Your task to perform on an android device: open sync settings in chrome Image 0: 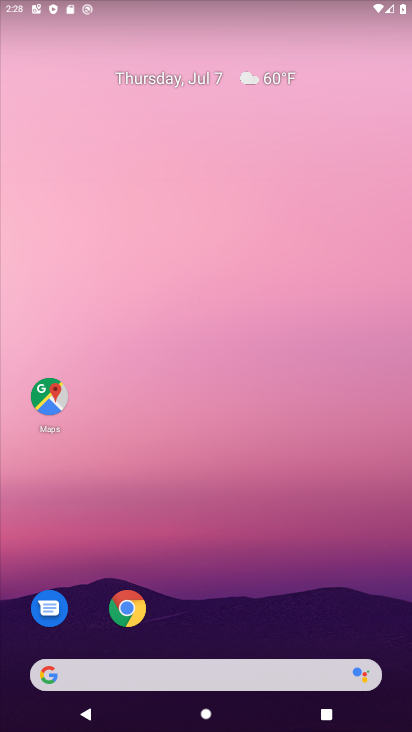
Step 0: press home button
Your task to perform on an android device: open sync settings in chrome Image 1: 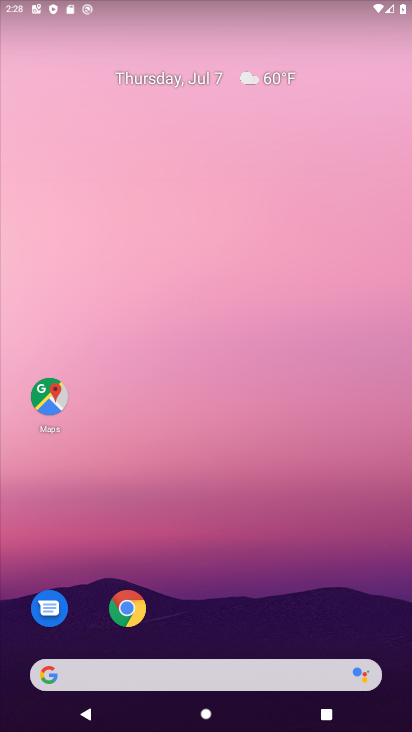
Step 1: drag from (216, 629) to (214, 93)
Your task to perform on an android device: open sync settings in chrome Image 2: 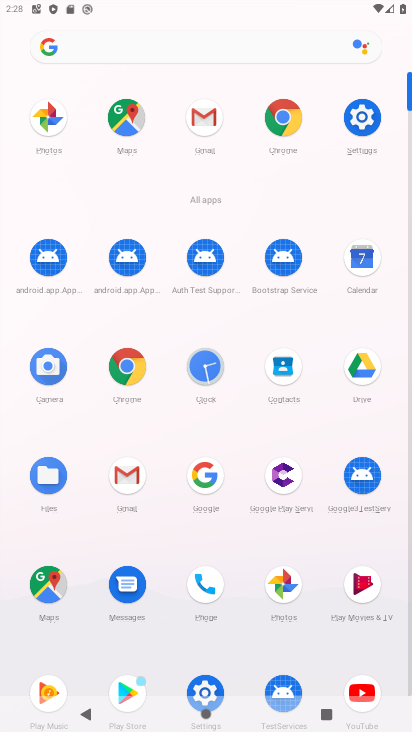
Step 2: click (279, 114)
Your task to perform on an android device: open sync settings in chrome Image 3: 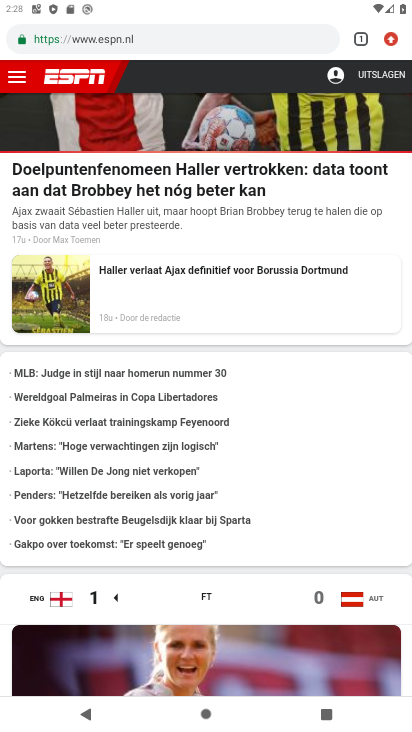
Step 3: click (388, 37)
Your task to perform on an android device: open sync settings in chrome Image 4: 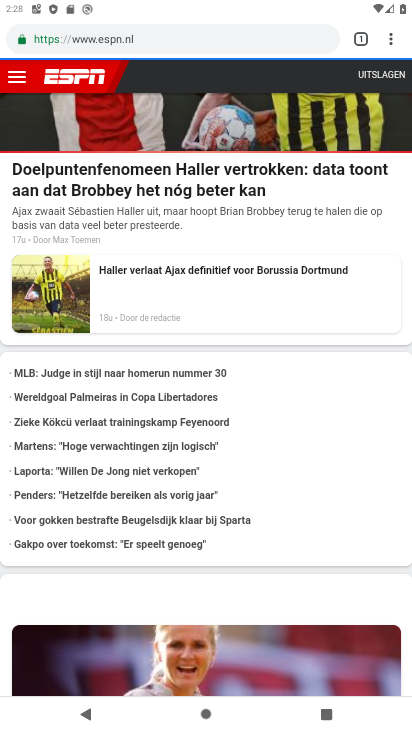
Step 4: click (395, 40)
Your task to perform on an android device: open sync settings in chrome Image 5: 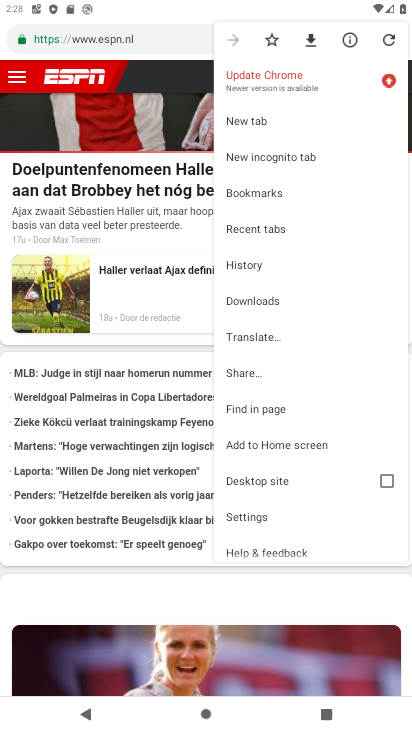
Step 5: click (272, 509)
Your task to perform on an android device: open sync settings in chrome Image 6: 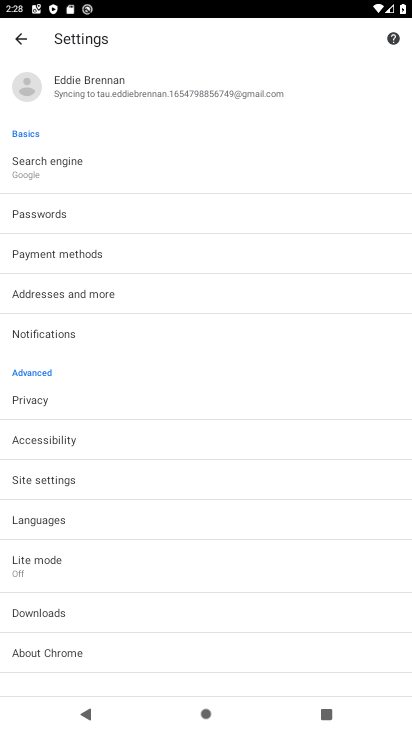
Step 6: click (144, 85)
Your task to perform on an android device: open sync settings in chrome Image 7: 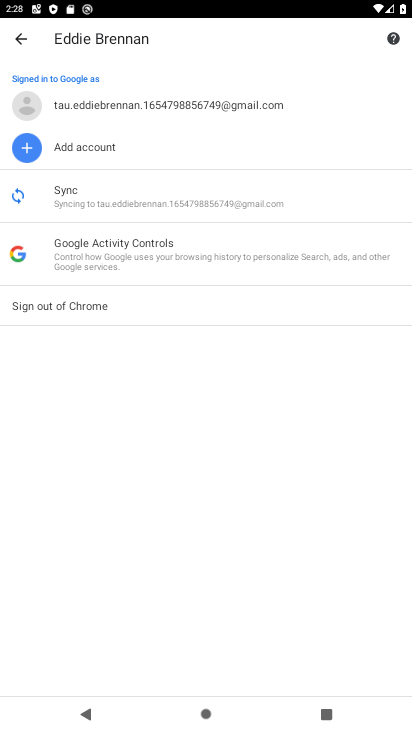
Step 7: click (110, 192)
Your task to perform on an android device: open sync settings in chrome Image 8: 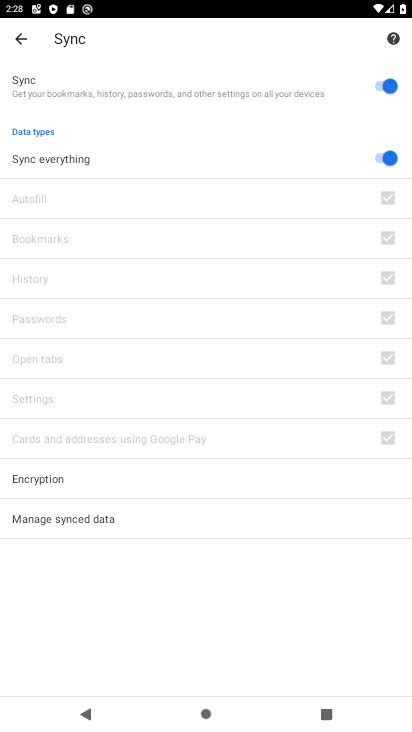
Step 8: task complete